Your task to perform on an android device: Open ESPN.com Image 0: 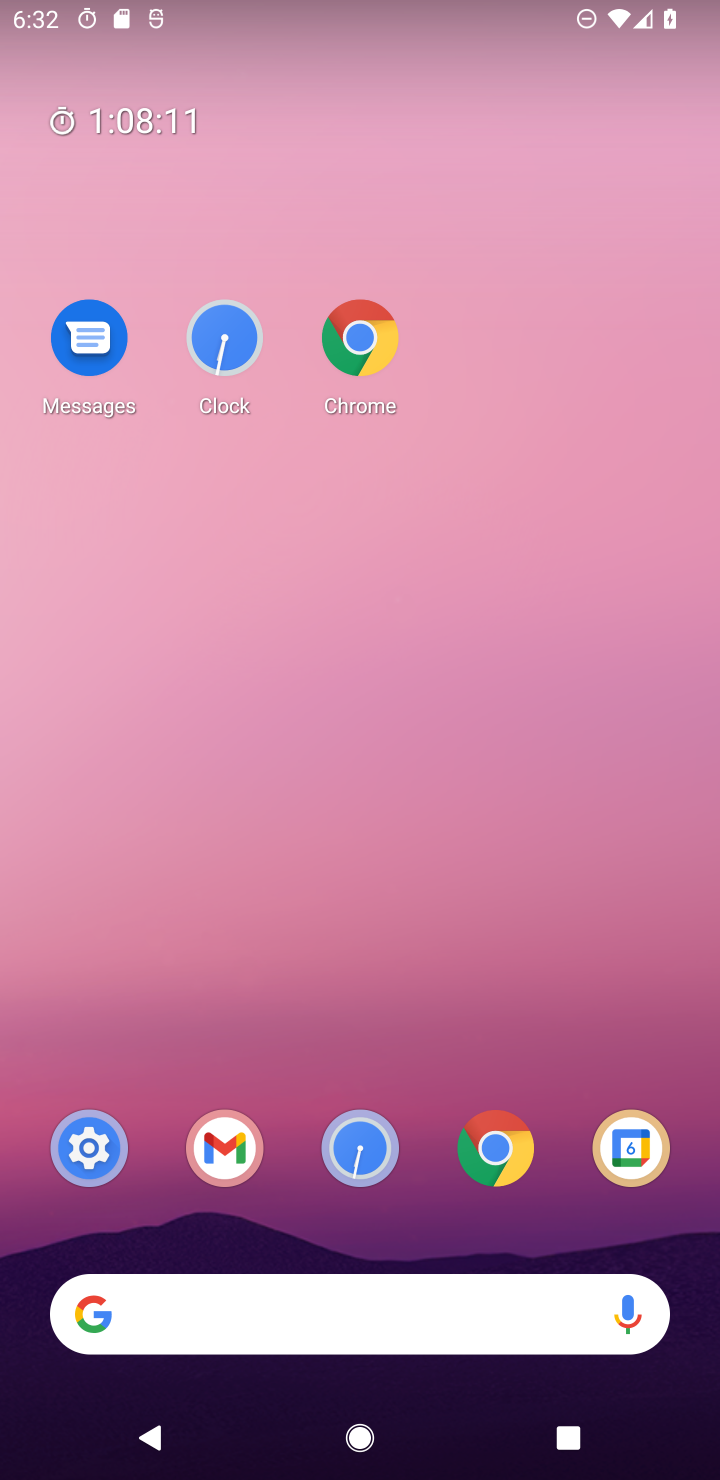
Step 0: drag from (422, 1054) to (441, 313)
Your task to perform on an android device: Open ESPN.com Image 1: 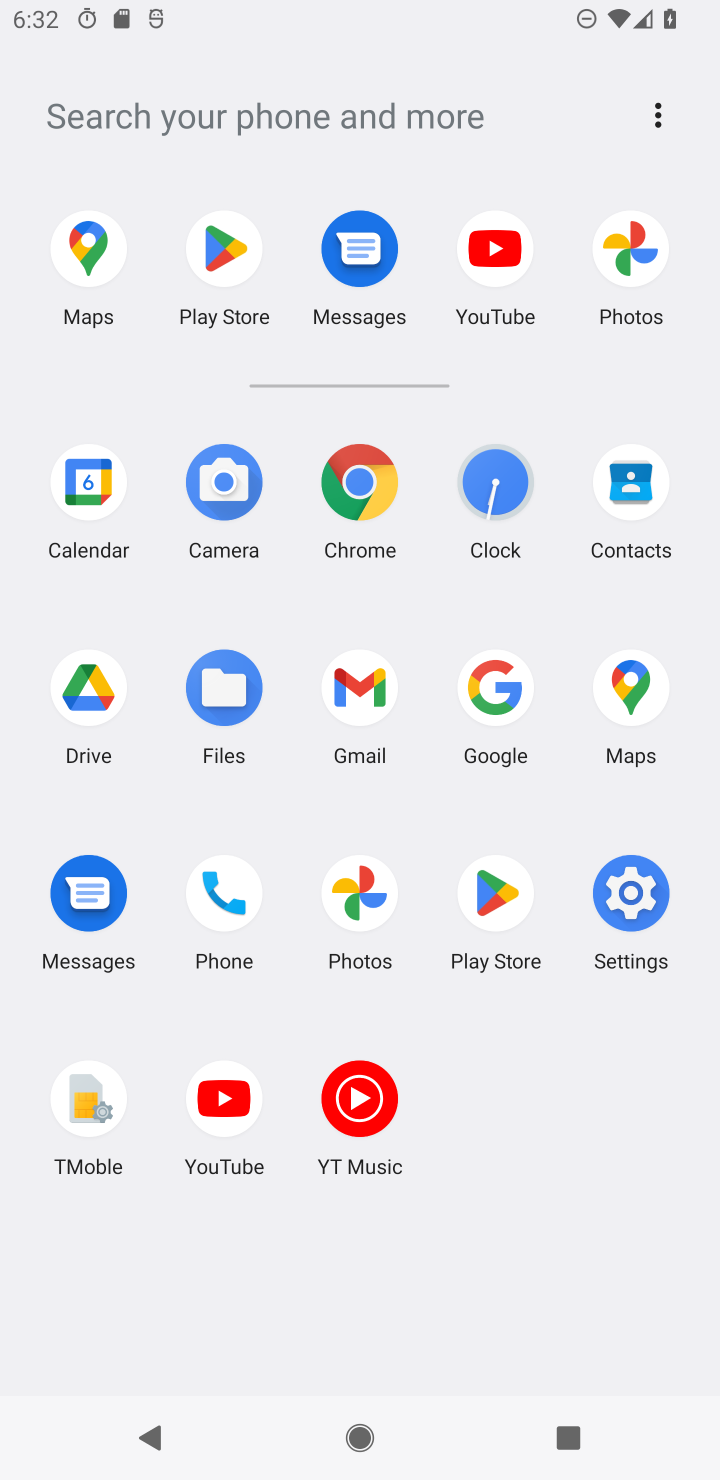
Step 1: click (353, 466)
Your task to perform on an android device: Open ESPN.com Image 2: 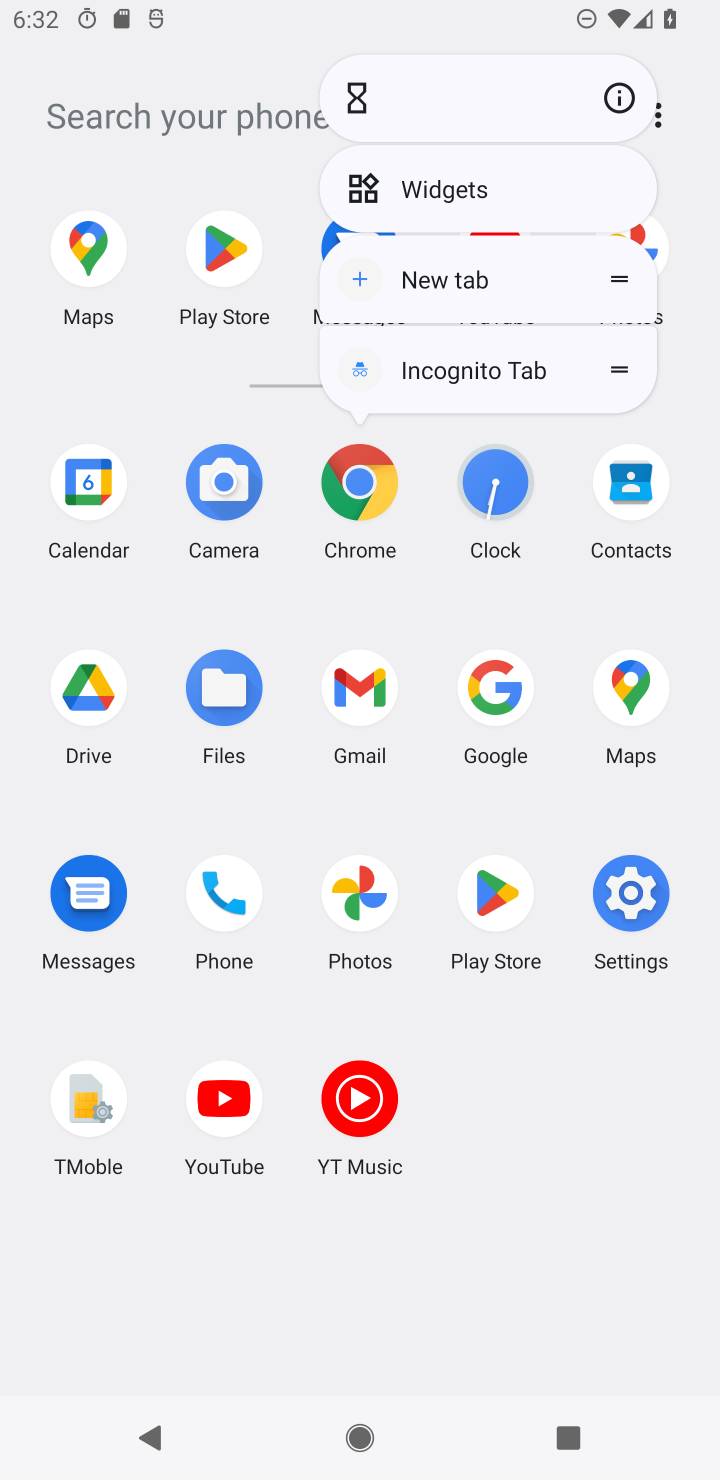
Step 2: click (607, 106)
Your task to perform on an android device: Open ESPN.com Image 3: 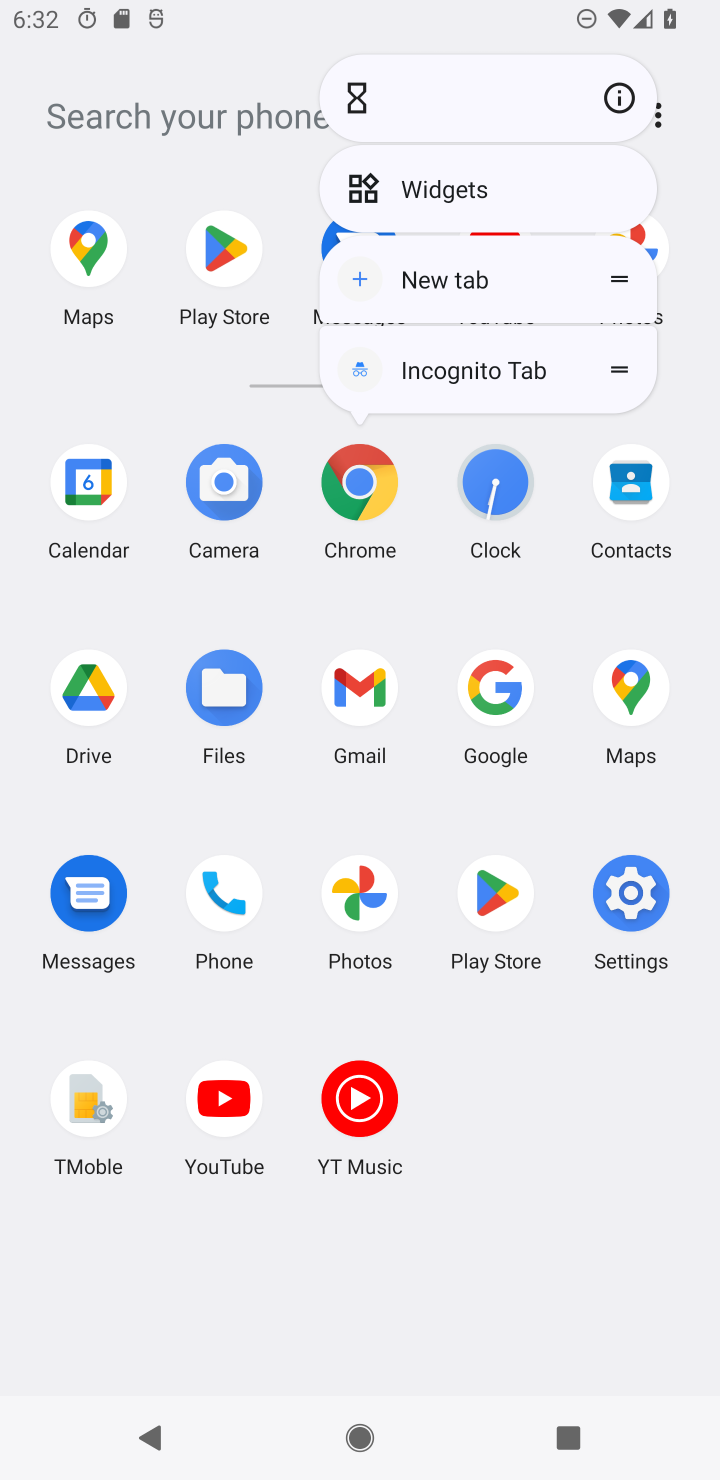
Step 3: click (609, 100)
Your task to perform on an android device: Open ESPN.com Image 4: 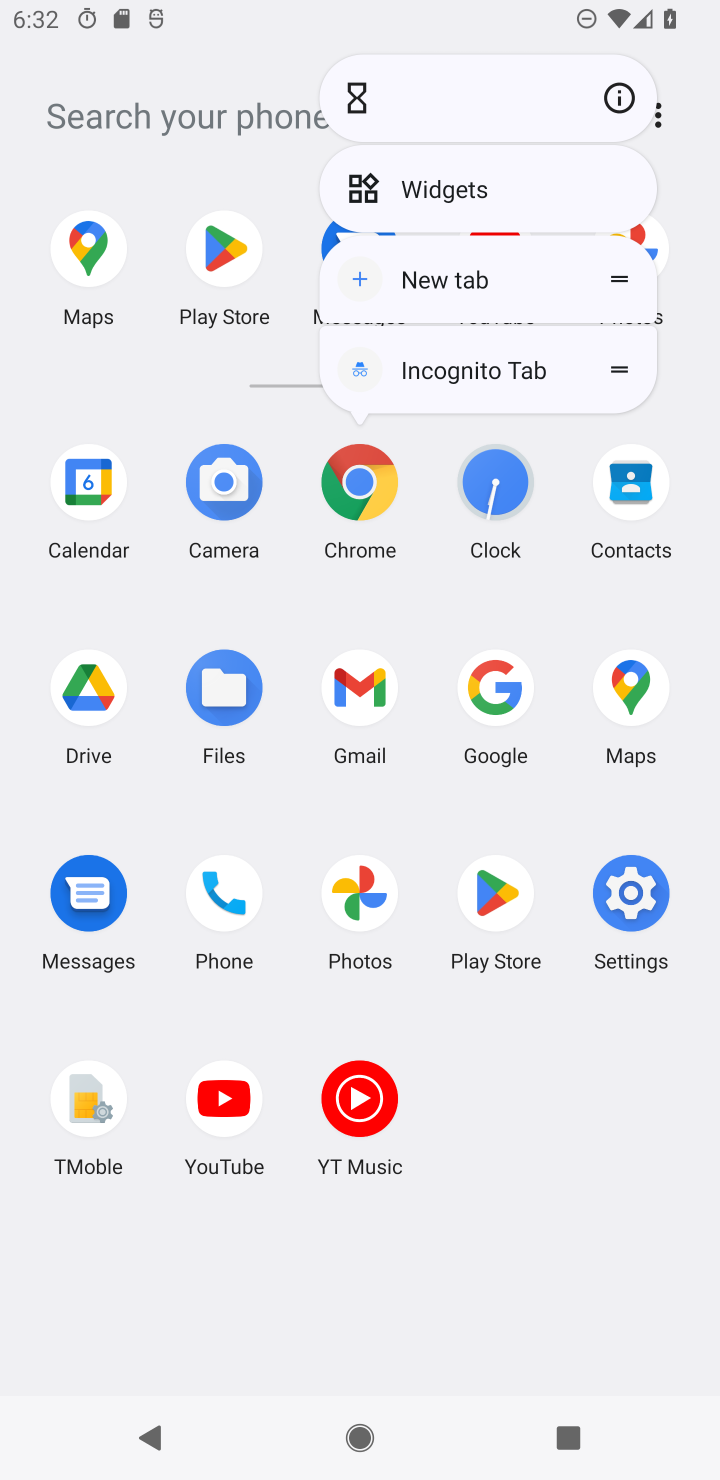
Step 4: click (353, 470)
Your task to perform on an android device: Open ESPN.com Image 5: 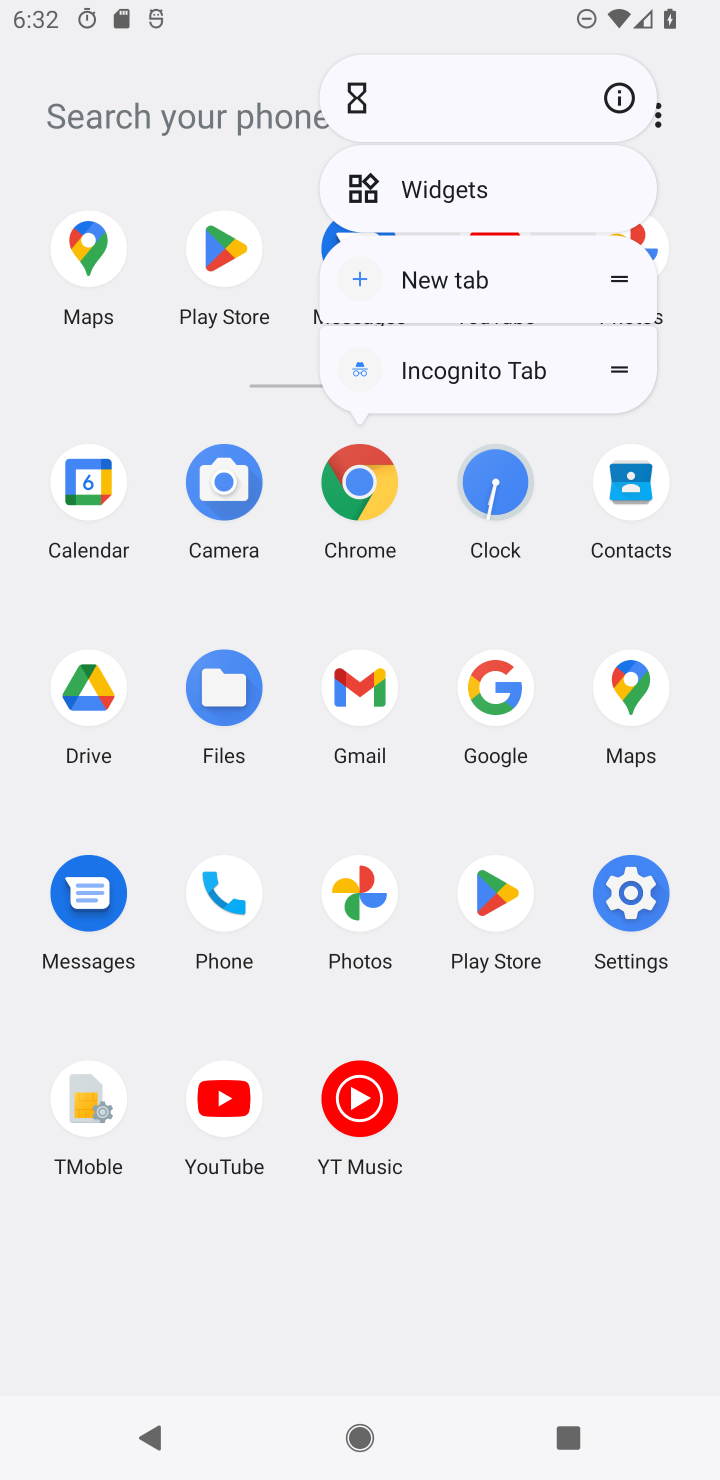
Step 5: click (606, 82)
Your task to perform on an android device: Open ESPN.com Image 6: 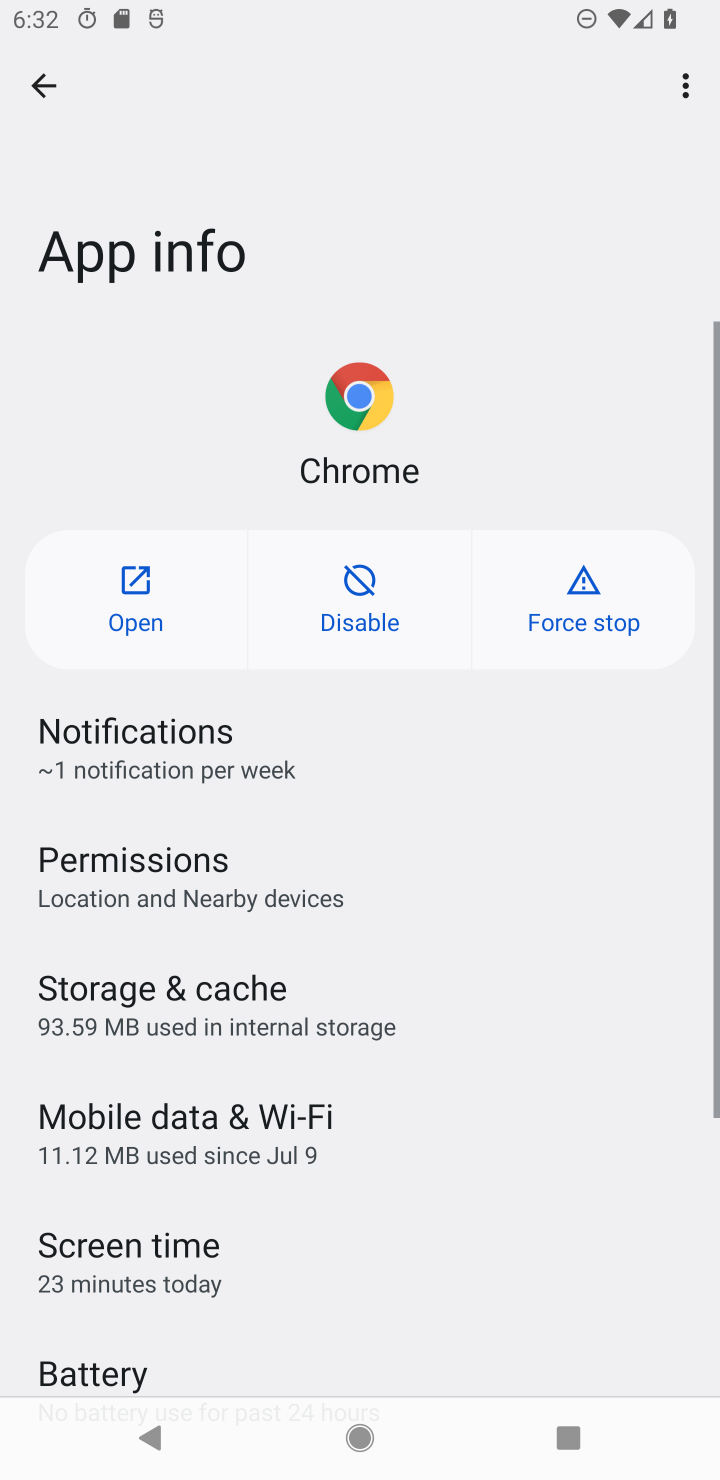
Step 6: click (138, 596)
Your task to perform on an android device: Open ESPN.com Image 7: 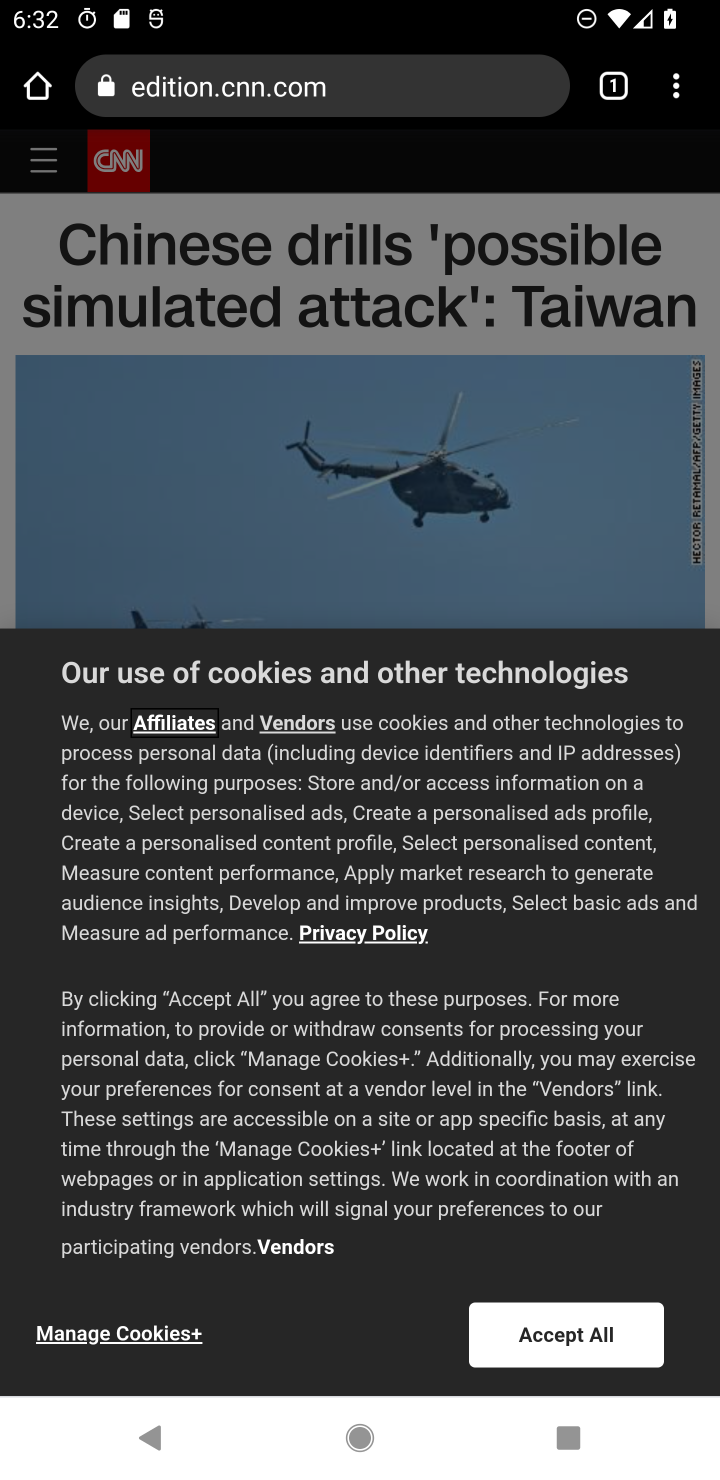
Step 7: click (221, 83)
Your task to perform on an android device: Open ESPN.com Image 8: 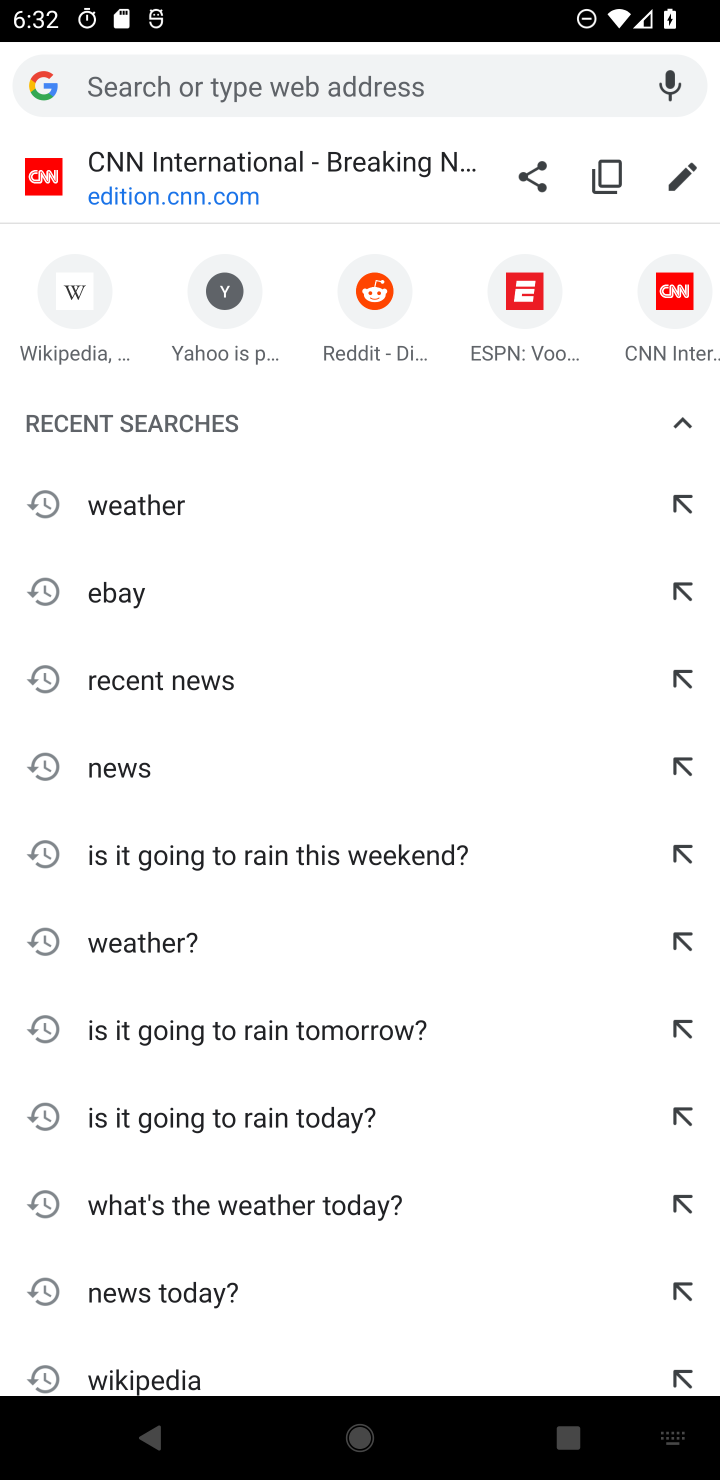
Step 8: type "espn.com"
Your task to perform on an android device: Open ESPN.com Image 9: 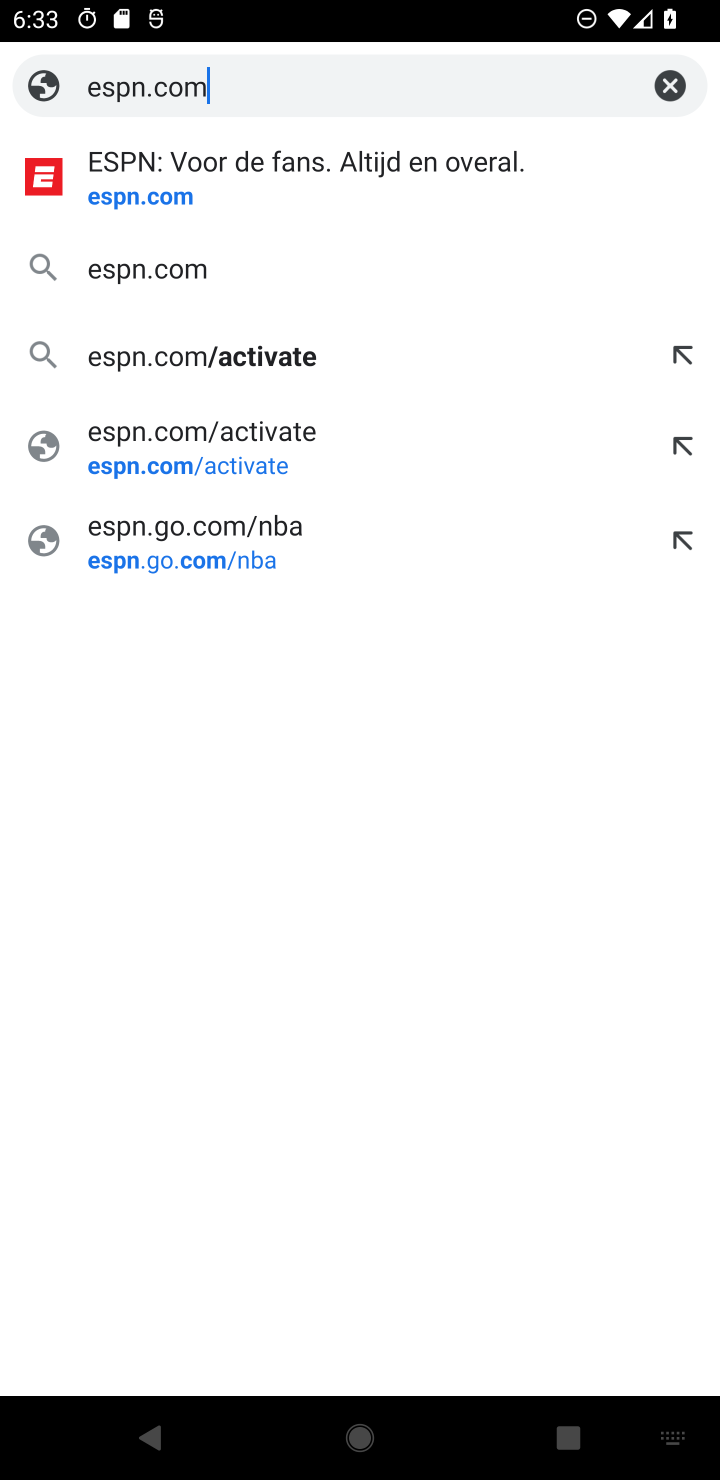
Step 9: click (136, 156)
Your task to perform on an android device: Open ESPN.com Image 10: 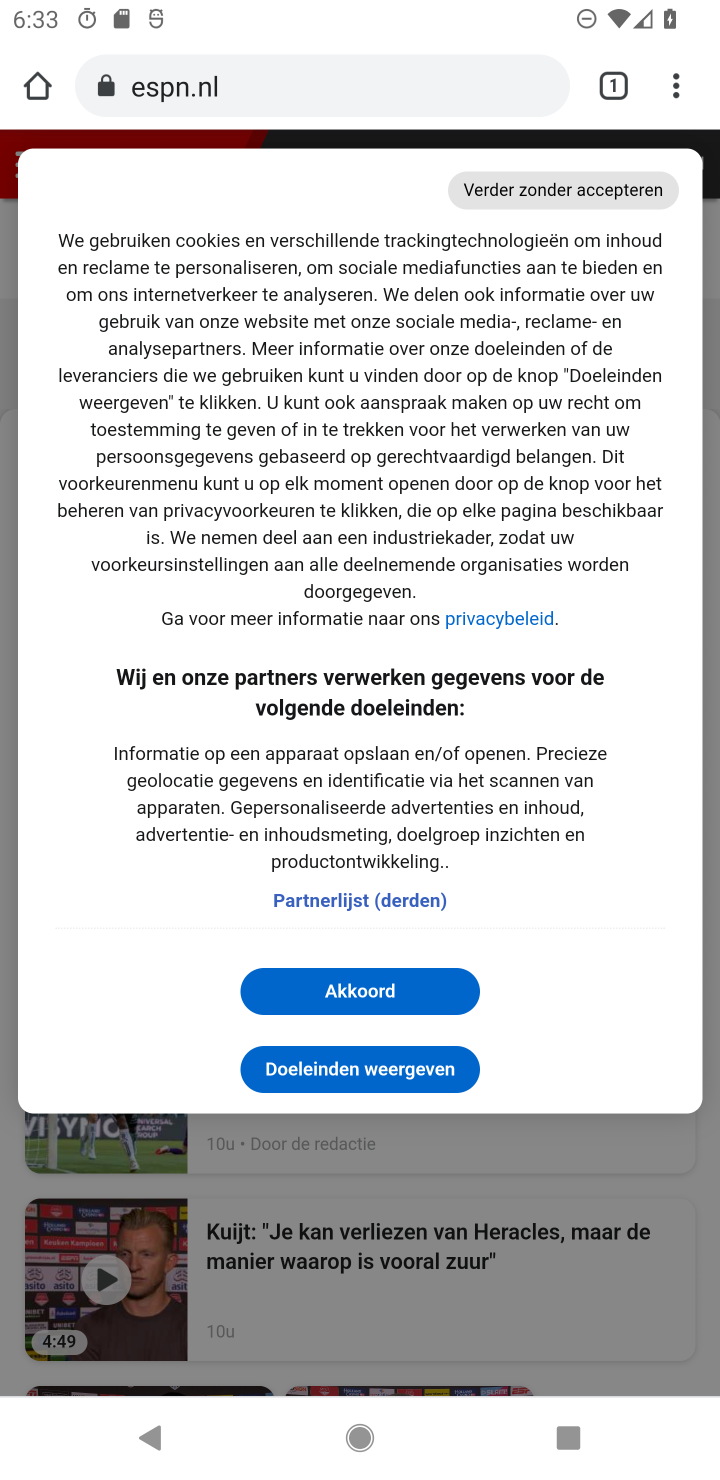
Step 10: task complete